Your task to perform on an android device: Open the web browser Image 0: 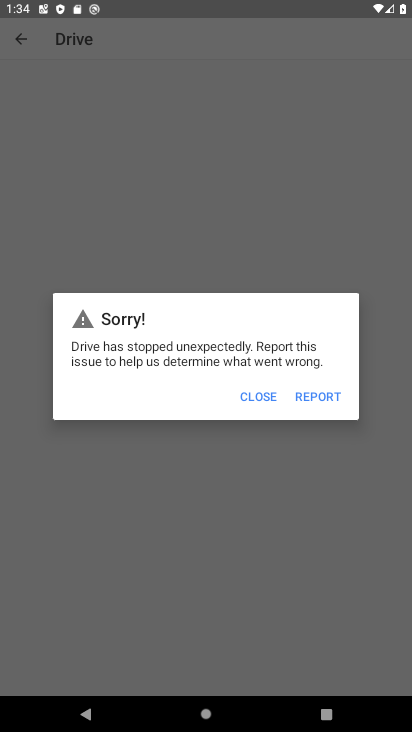
Step 0: press home button
Your task to perform on an android device: Open the web browser Image 1: 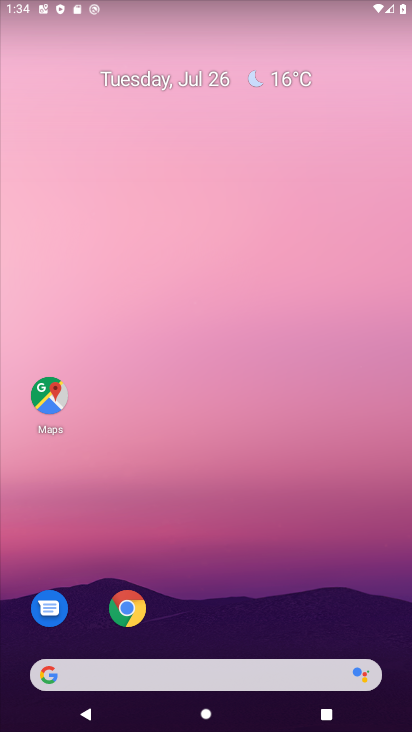
Step 1: click (143, 603)
Your task to perform on an android device: Open the web browser Image 2: 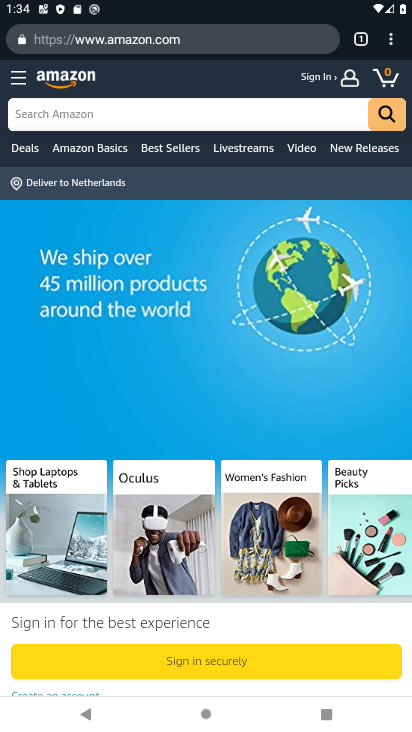
Step 2: task complete